Your task to perform on an android device: Open accessibility settings Image 0: 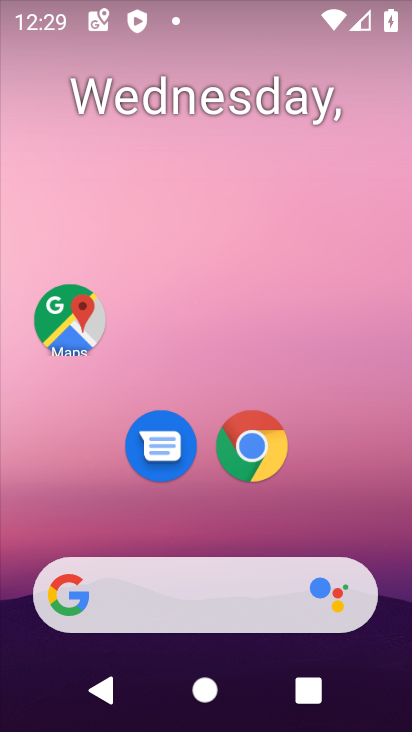
Step 0: drag from (178, 534) to (243, 68)
Your task to perform on an android device: Open accessibility settings Image 1: 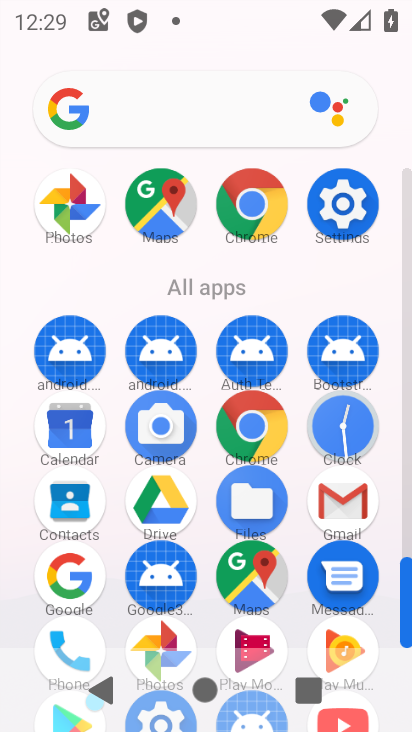
Step 1: drag from (209, 266) to (216, 118)
Your task to perform on an android device: Open accessibility settings Image 2: 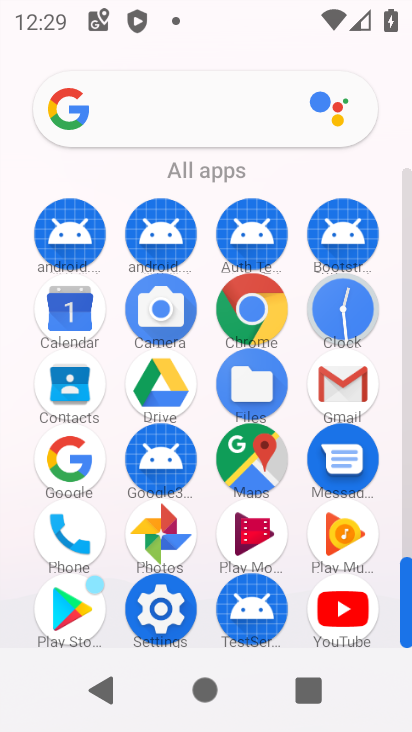
Step 2: click (174, 618)
Your task to perform on an android device: Open accessibility settings Image 3: 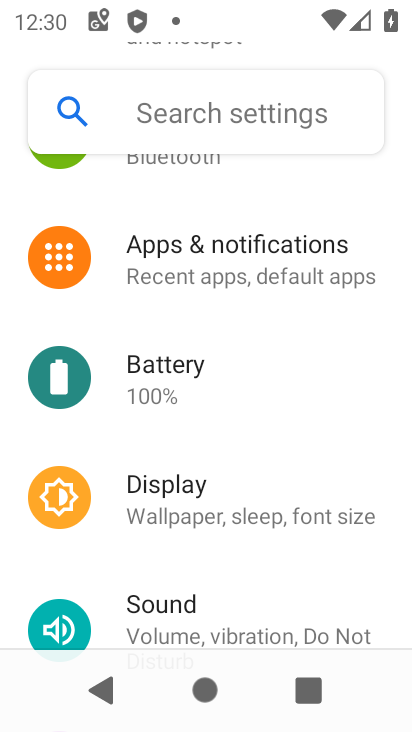
Step 3: drag from (220, 589) to (241, 288)
Your task to perform on an android device: Open accessibility settings Image 4: 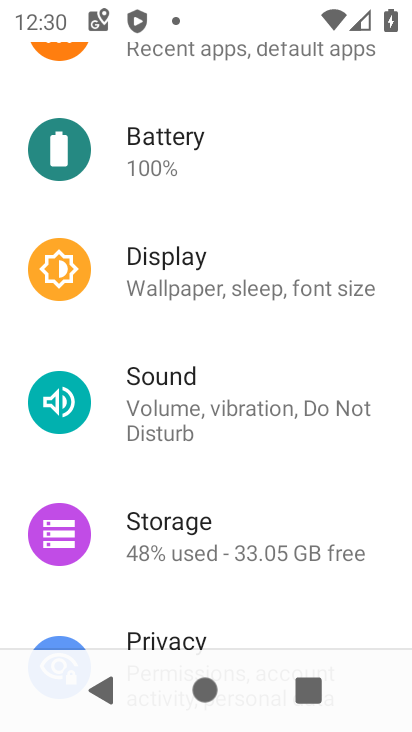
Step 4: drag from (187, 553) to (210, 212)
Your task to perform on an android device: Open accessibility settings Image 5: 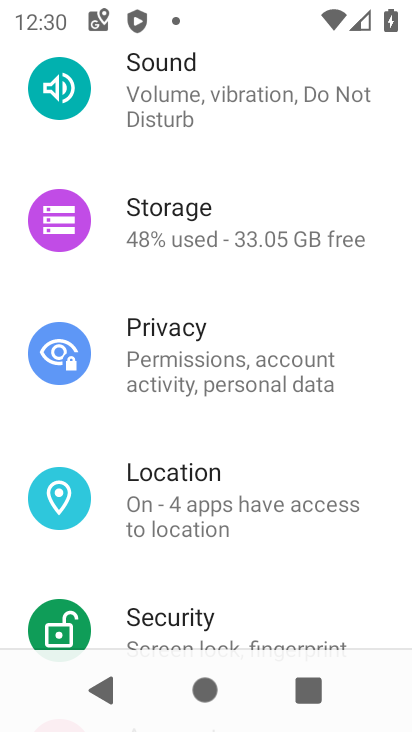
Step 5: drag from (215, 537) to (200, 179)
Your task to perform on an android device: Open accessibility settings Image 6: 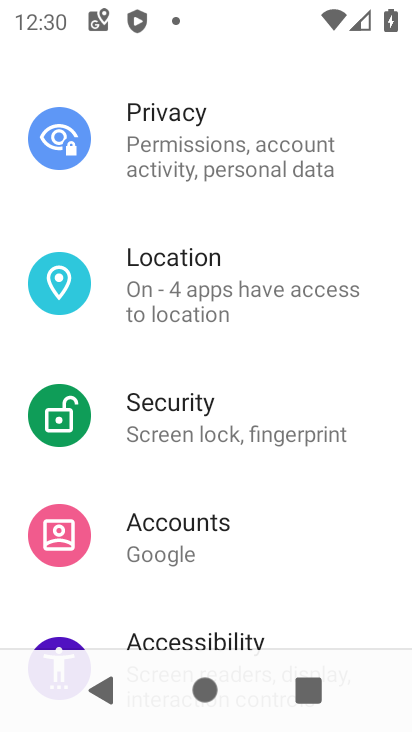
Step 6: drag from (216, 549) to (221, 227)
Your task to perform on an android device: Open accessibility settings Image 7: 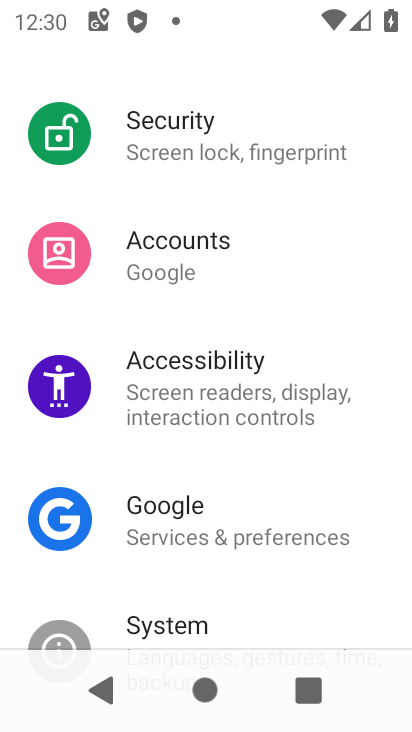
Step 7: click (224, 408)
Your task to perform on an android device: Open accessibility settings Image 8: 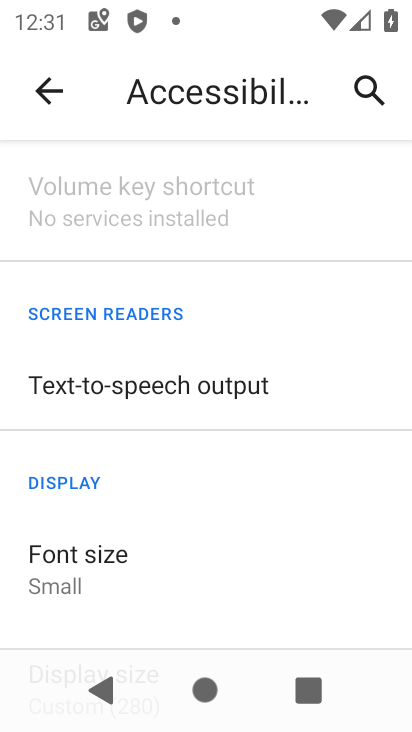
Step 8: task complete